Your task to perform on an android device: check storage Image 0: 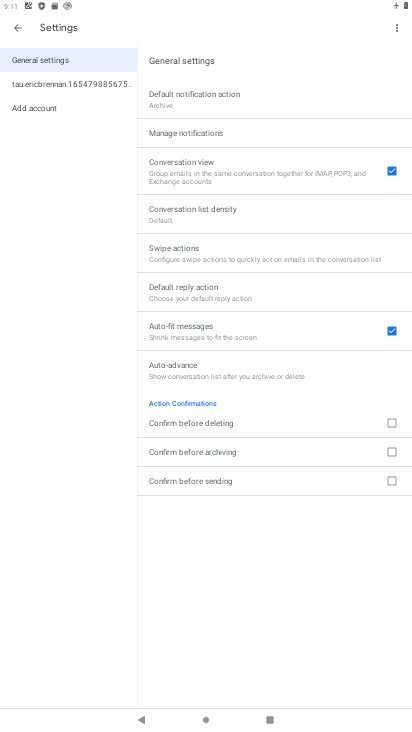
Step 0: press home button
Your task to perform on an android device: check storage Image 1: 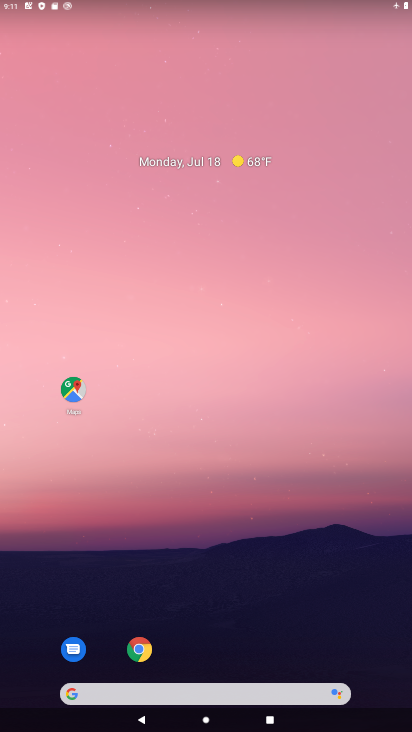
Step 1: drag from (104, 679) to (176, 36)
Your task to perform on an android device: check storage Image 2: 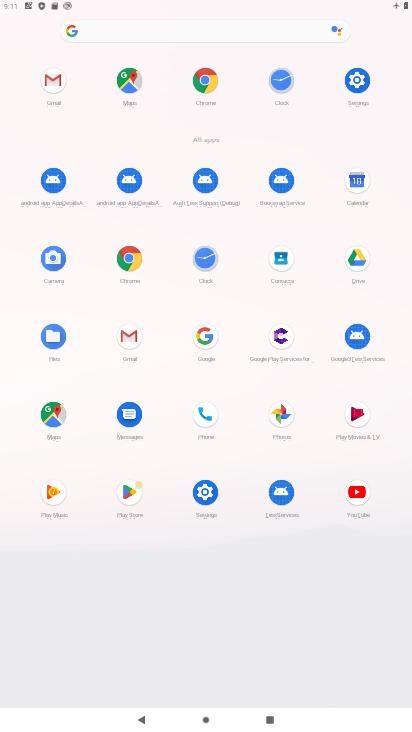
Step 2: click (352, 82)
Your task to perform on an android device: check storage Image 3: 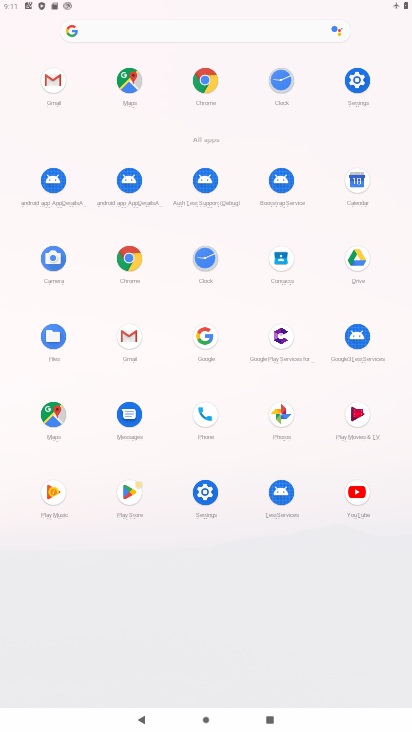
Step 3: click (352, 82)
Your task to perform on an android device: check storage Image 4: 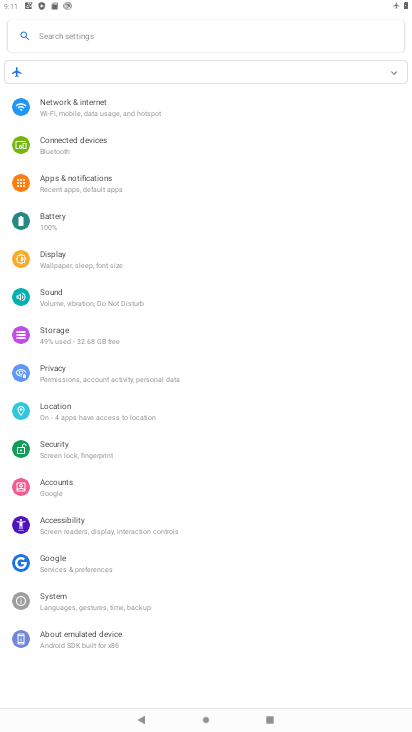
Step 4: click (71, 338)
Your task to perform on an android device: check storage Image 5: 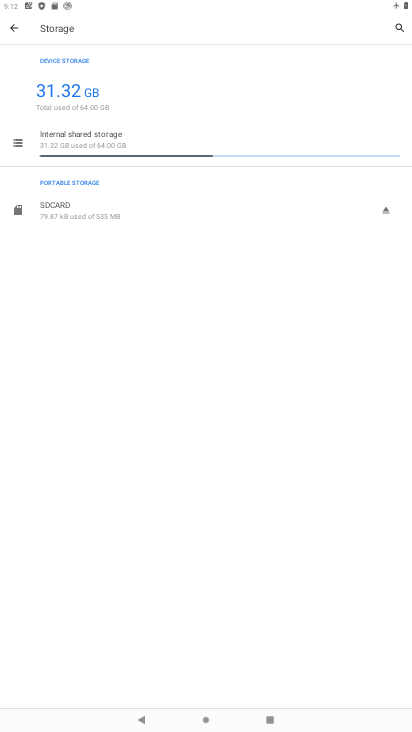
Step 5: task complete